Your task to perform on an android device: Go to battery settings Image 0: 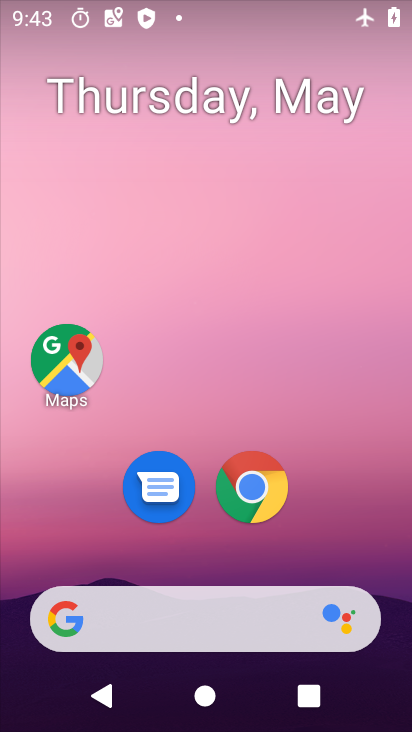
Step 0: drag from (216, 644) to (207, 210)
Your task to perform on an android device: Go to battery settings Image 1: 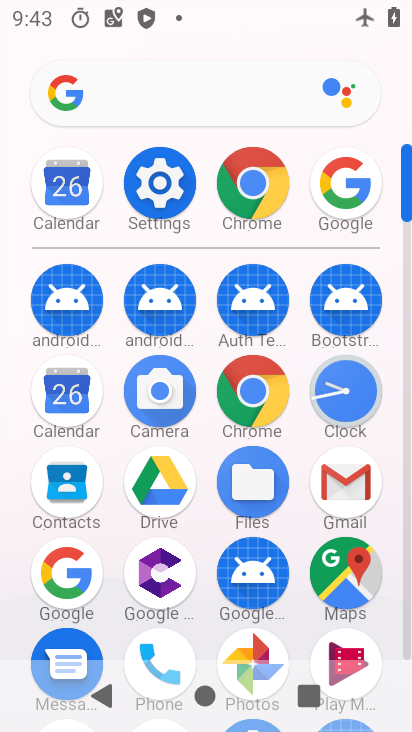
Step 1: click (166, 197)
Your task to perform on an android device: Go to battery settings Image 2: 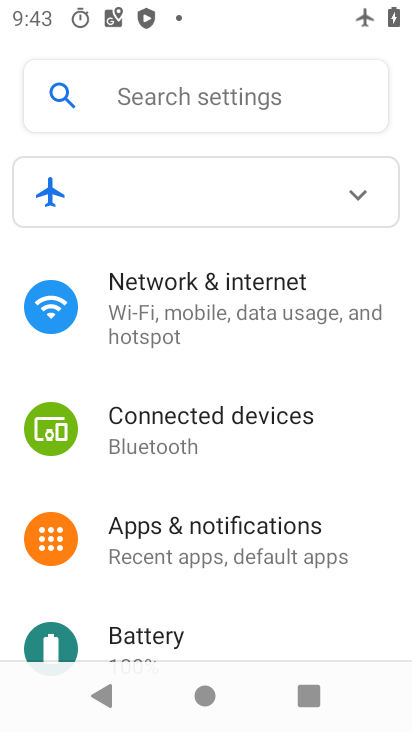
Step 2: drag from (126, 525) to (184, 359)
Your task to perform on an android device: Go to battery settings Image 3: 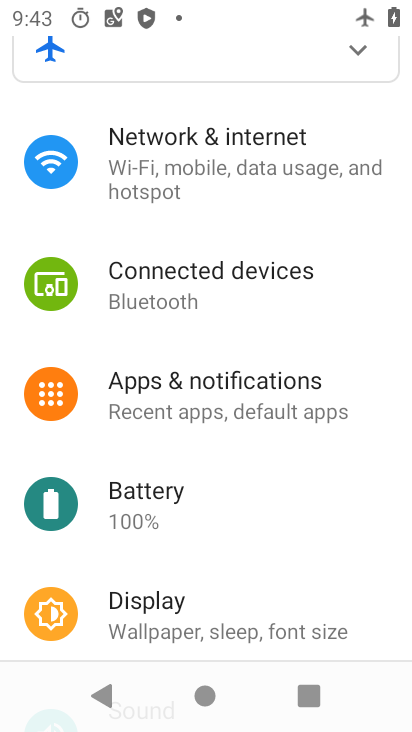
Step 3: click (216, 500)
Your task to perform on an android device: Go to battery settings Image 4: 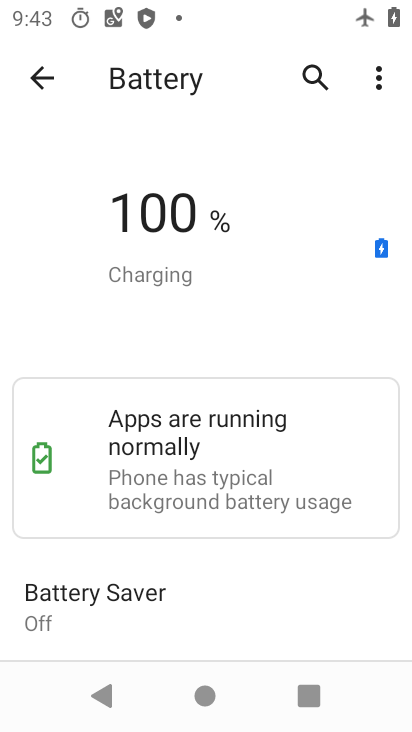
Step 4: task complete